Your task to perform on an android device: turn smart compose on in the gmail app Image 0: 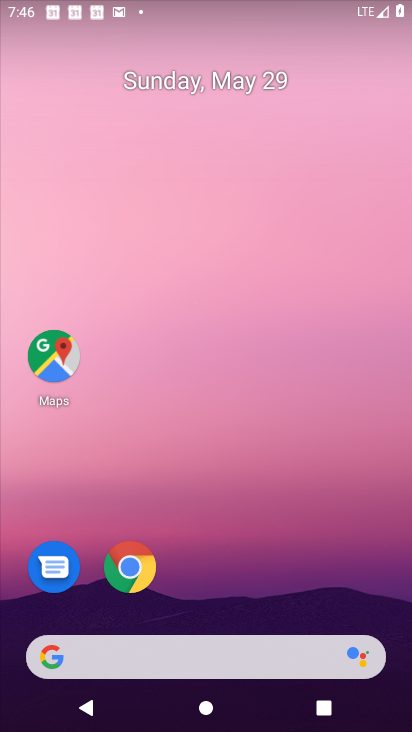
Step 0: drag from (291, 582) to (287, 264)
Your task to perform on an android device: turn smart compose on in the gmail app Image 1: 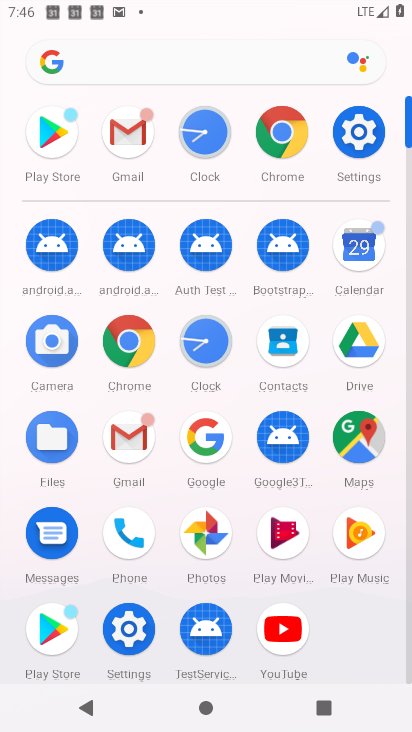
Step 1: click (131, 435)
Your task to perform on an android device: turn smart compose on in the gmail app Image 2: 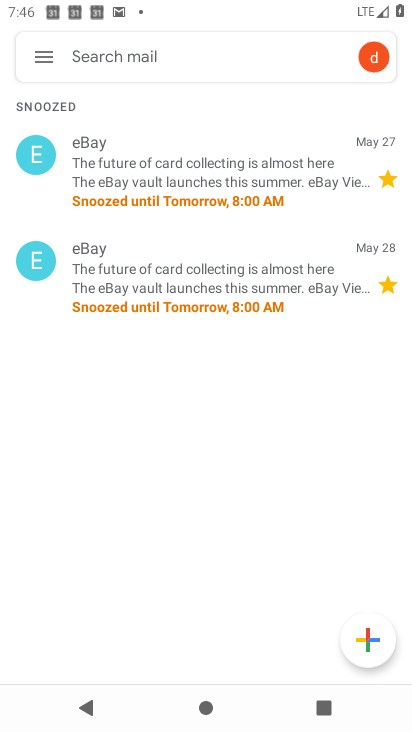
Step 2: click (47, 54)
Your task to perform on an android device: turn smart compose on in the gmail app Image 3: 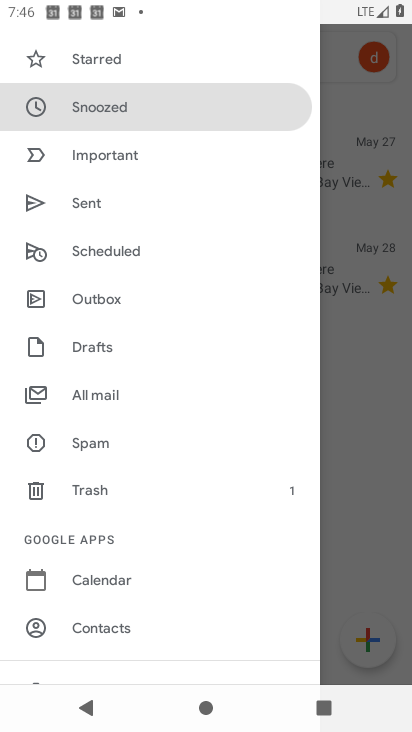
Step 3: drag from (117, 604) to (163, 314)
Your task to perform on an android device: turn smart compose on in the gmail app Image 4: 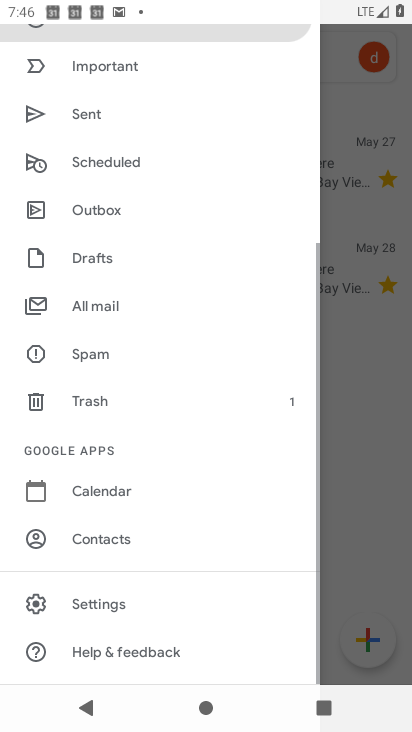
Step 4: click (113, 588)
Your task to perform on an android device: turn smart compose on in the gmail app Image 5: 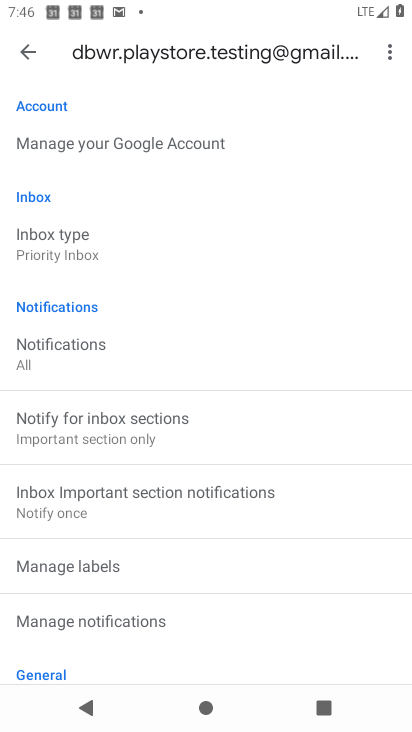
Step 5: task complete